Your task to perform on an android device: Empty the shopping cart on target. Add macbook pro 13 inch to the cart on target, then select checkout. Image 0: 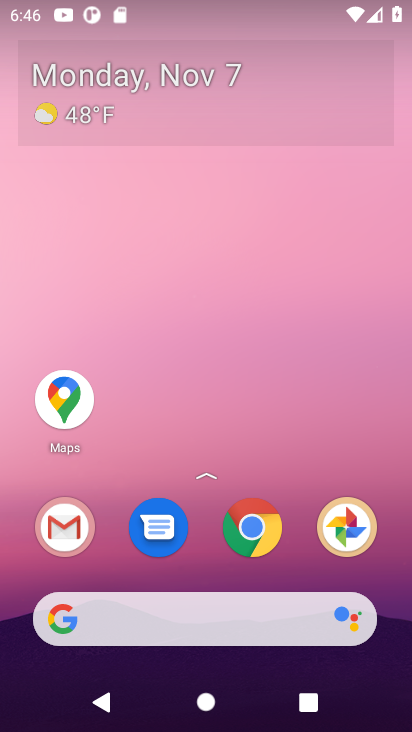
Step 0: click (258, 509)
Your task to perform on an android device: Empty the shopping cart on target. Add macbook pro 13 inch to the cart on target, then select checkout. Image 1: 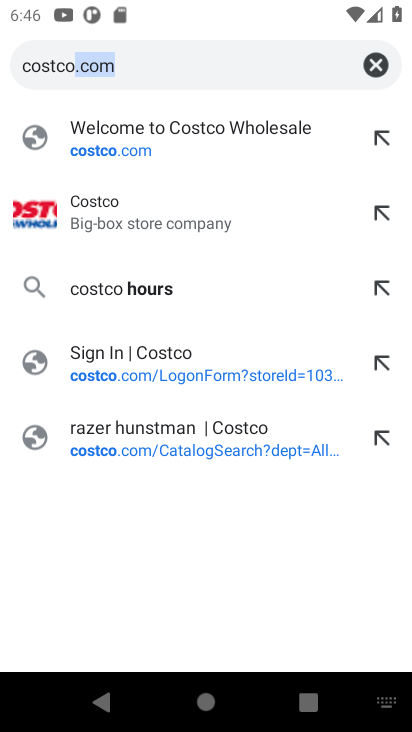
Step 1: click (381, 62)
Your task to perform on an android device: Empty the shopping cart on target. Add macbook pro 13 inch to the cart on target, then select checkout. Image 2: 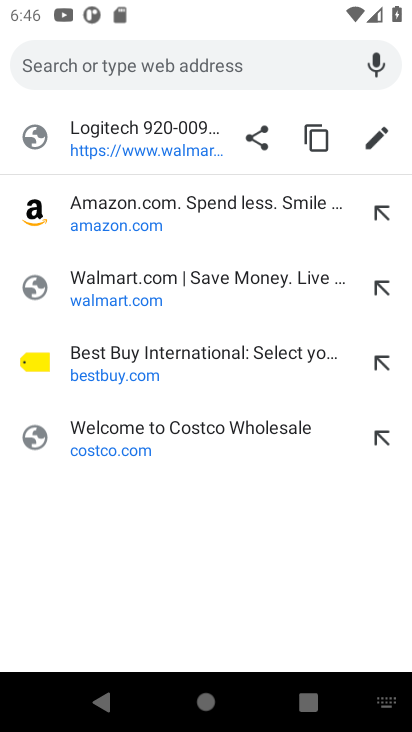
Step 2: type "target.com"
Your task to perform on an android device: Empty the shopping cart on target. Add macbook pro 13 inch to the cart on target, then select checkout. Image 3: 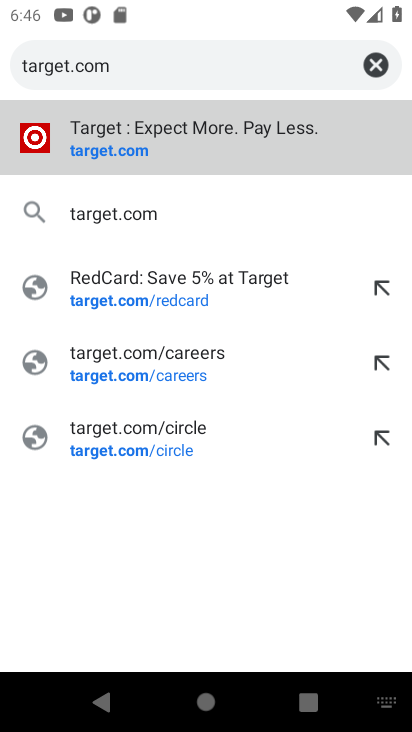
Step 3: click (148, 153)
Your task to perform on an android device: Empty the shopping cart on target. Add macbook pro 13 inch to the cart on target, then select checkout. Image 4: 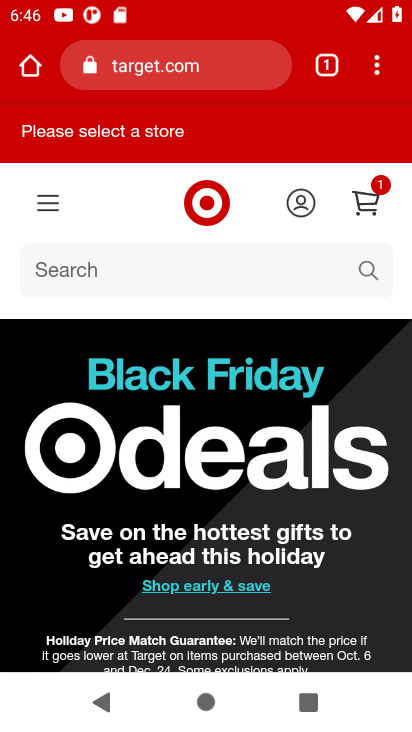
Step 4: click (165, 285)
Your task to perform on an android device: Empty the shopping cart on target. Add macbook pro 13 inch to the cart on target, then select checkout. Image 5: 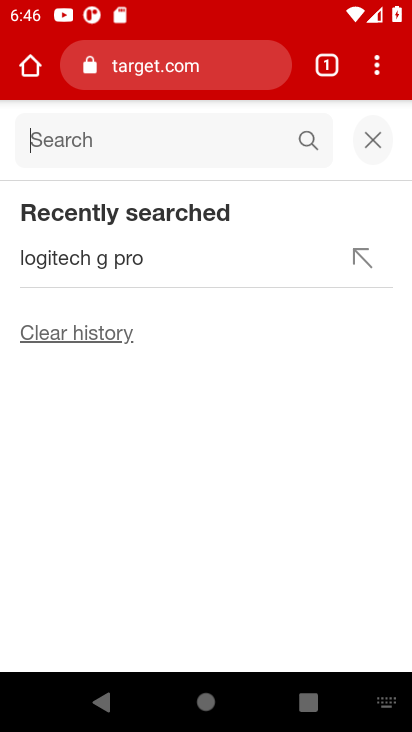
Step 5: type "macbook pro 13 inch"
Your task to perform on an android device: Empty the shopping cart on target. Add macbook pro 13 inch to the cart on target, then select checkout. Image 6: 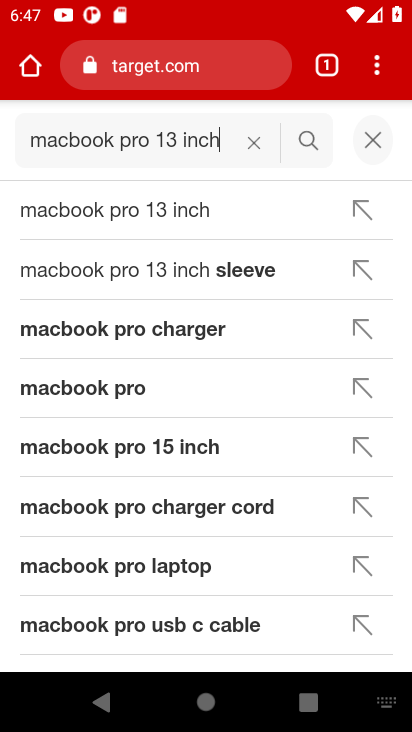
Step 6: click (194, 226)
Your task to perform on an android device: Empty the shopping cart on target. Add macbook pro 13 inch to the cart on target, then select checkout. Image 7: 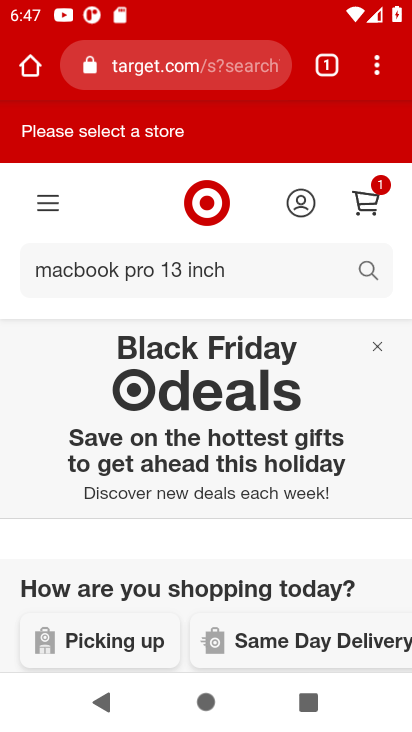
Step 7: task complete